Your task to perform on an android device: toggle data saver in the chrome app Image 0: 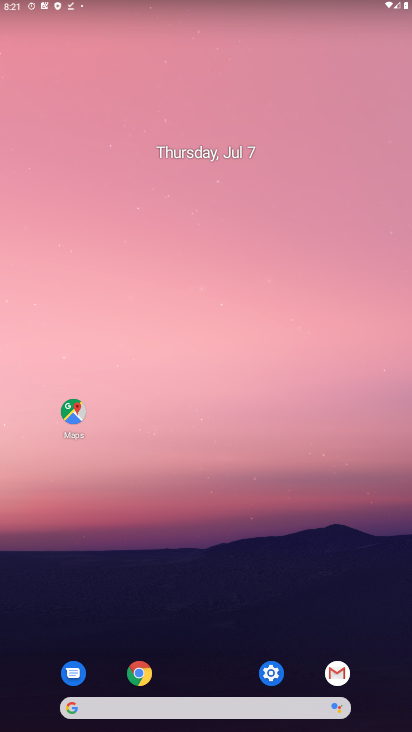
Step 0: click (153, 673)
Your task to perform on an android device: toggle data saver in the chrome app Image 1: 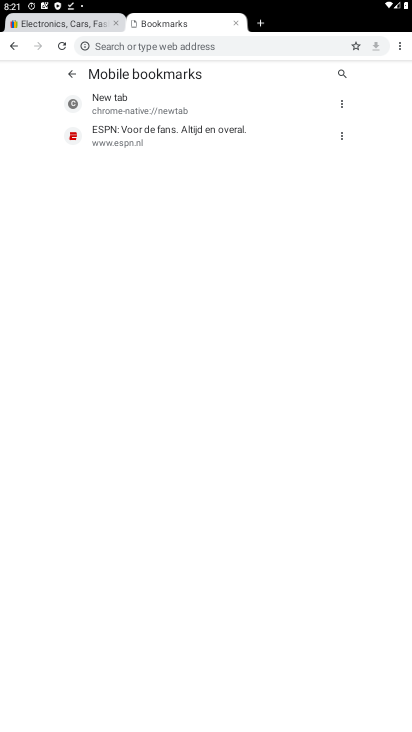
Step 1: click (396, 55)
Your task to perform on an android device: toggle data saver in the chrome app Image 2: 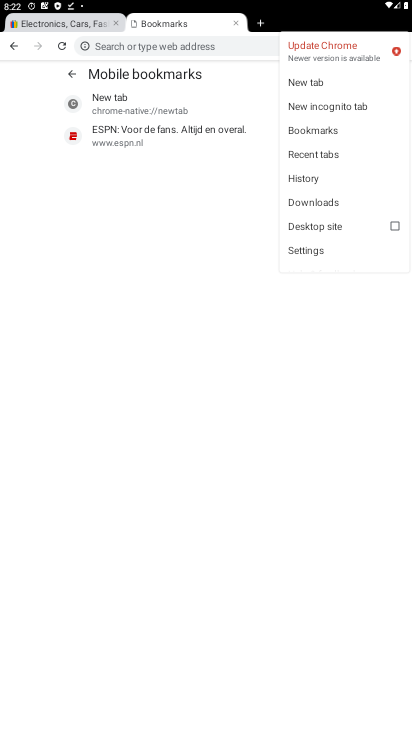
Step 2: click (309, 248)
Your task to perform on an android device: toggle data saver in the chrome app Image 3: 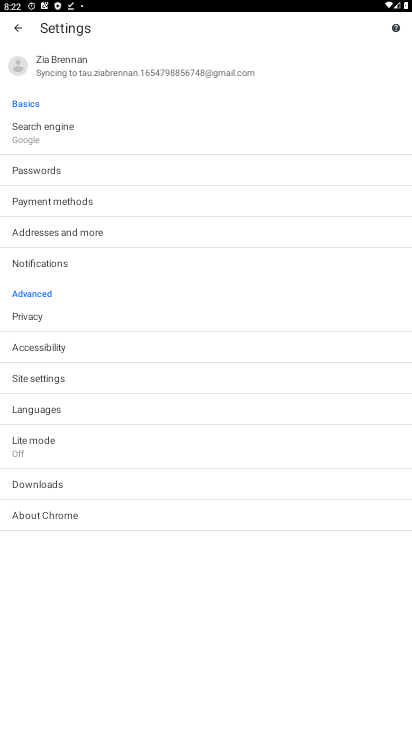
Step 3: click (57, 442)
Your task to perform on an android device: toggle data saver in the chrome app Image 4: 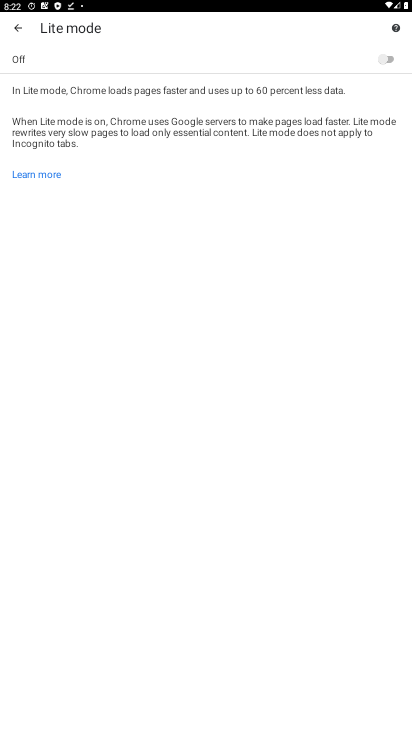
Step 4: task complete